Your task to perform on an android device: What is the news today? Image 0: 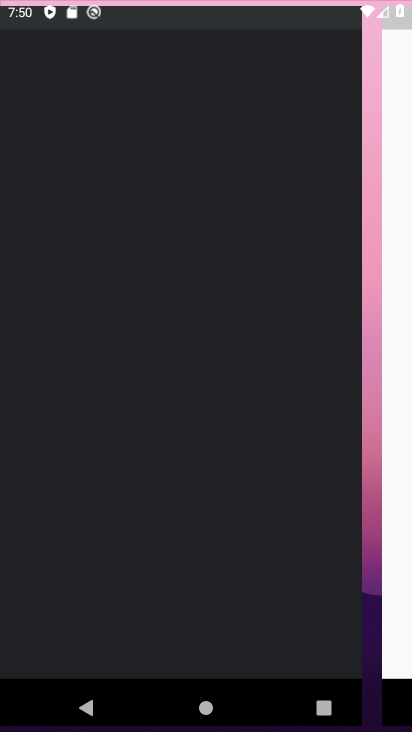
Step 0: drag from (188, 242) to (175, 164)
Your task to perform on an android device: What is the news today? Image 1: 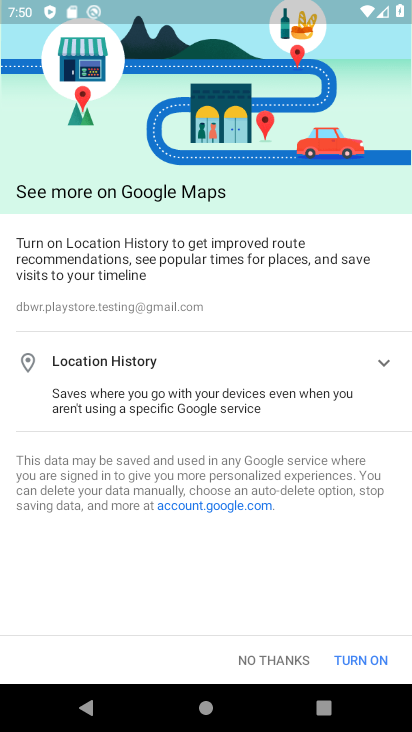
Step 1: press back button
Your task to perform on an android device: What is the news today? Image 2: 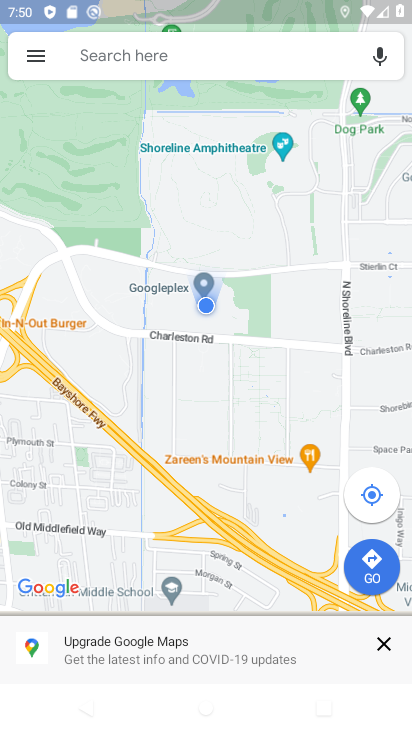
Step 2: press home button
Your task to perform on an android device: What is the news today? Image 3: 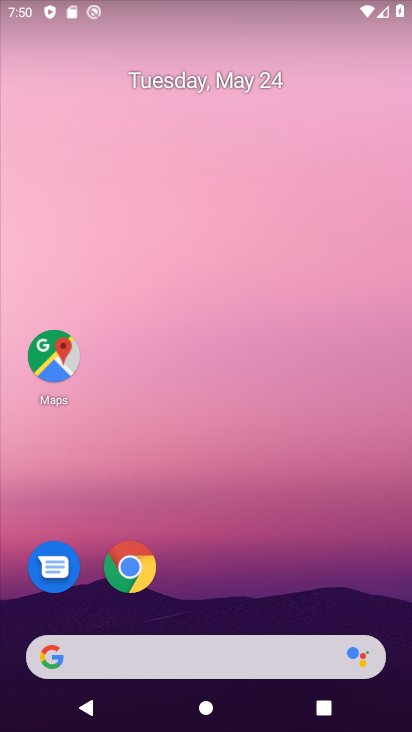
Step 3: drag from (259, 452) to (322, 525)
Your task to perform on an android device: What is the news today? Image 4: 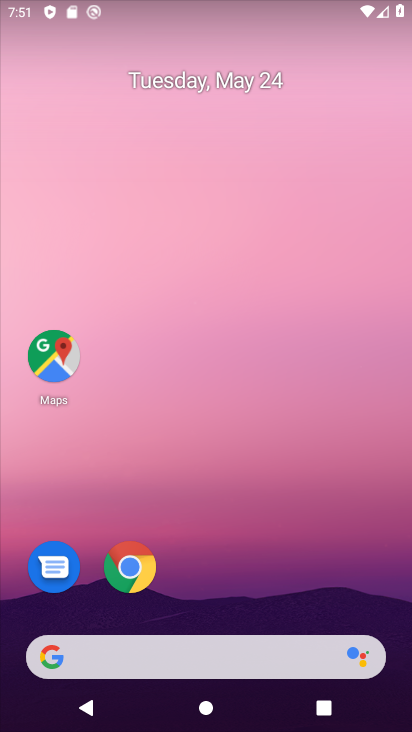
Step 4: drag from (116, 257) to (411, 660)
Your task to perform on an android device: What is the news today? Image 5: 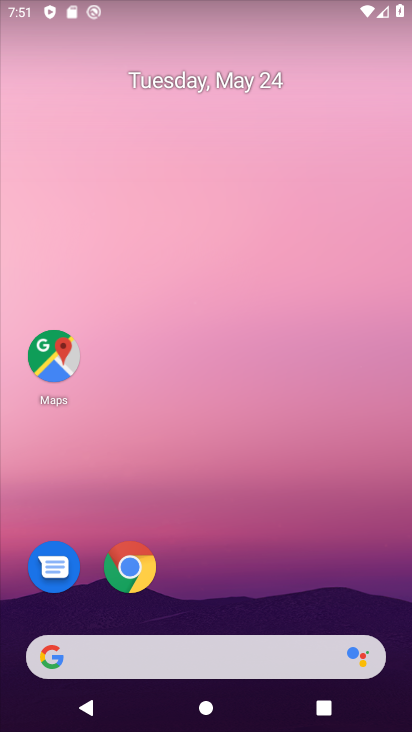
Step 5: drag from (4, 225) to (396, 309)
Your task to perform on an android device: What is the news today? Image 6: 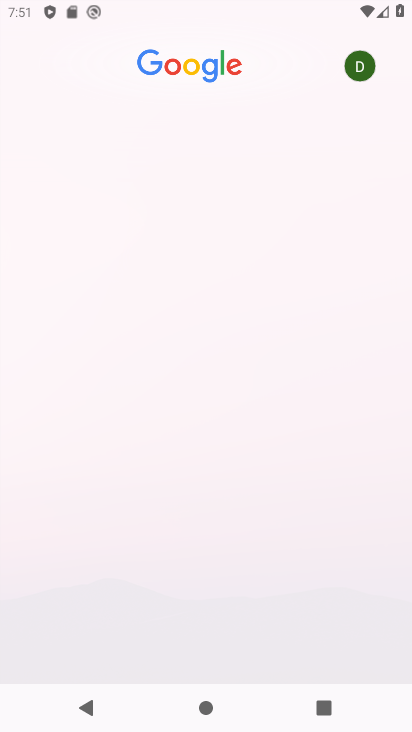
Step 6: drag from (103, 219) to (377, 405)
Your task to perform on an android device: What is the news today? Image 7: 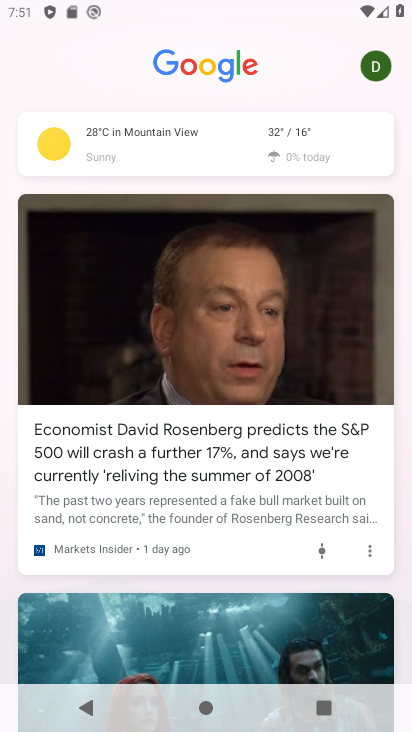
Step 7: drag from (197, 571) to (170, 106)
Your task to perform on an android device: What is the news today? Image 8: 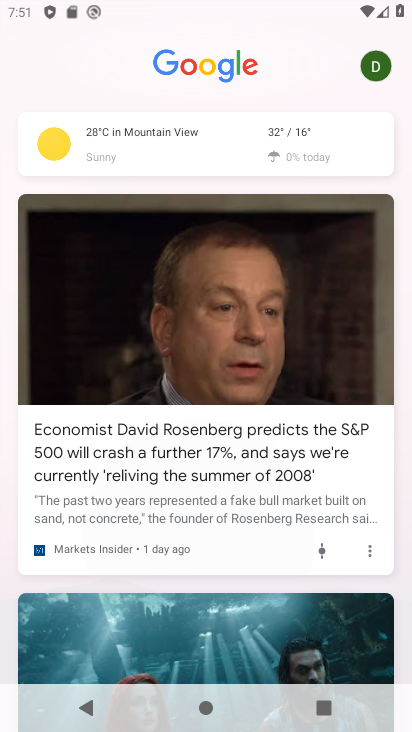
Step 8: drag from (169, 545) to (168, 69)
Your task to perform on an android device: What is the news today? Image 9: 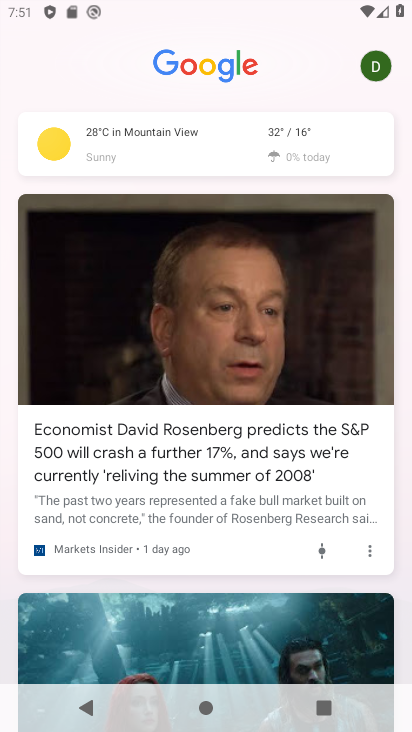
Step 9: drag from (168, 503) to (262, 105)
Your task to perform on an android device: What is the news today? Image 10: 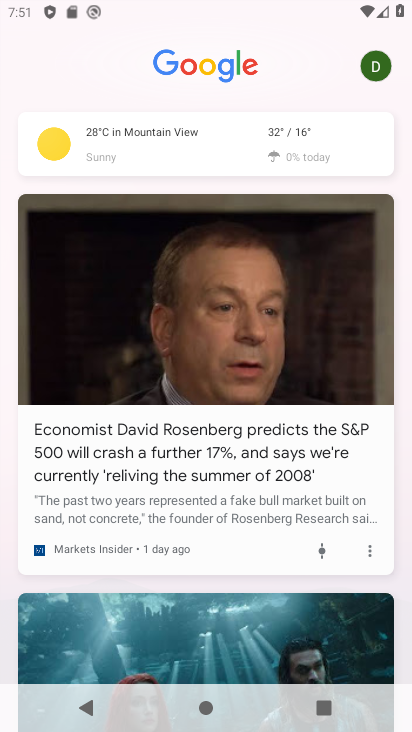
Step 10: drag from (303, 347) to (303, 284)
Your task to perform on an android device: What is the news today? Image 11: 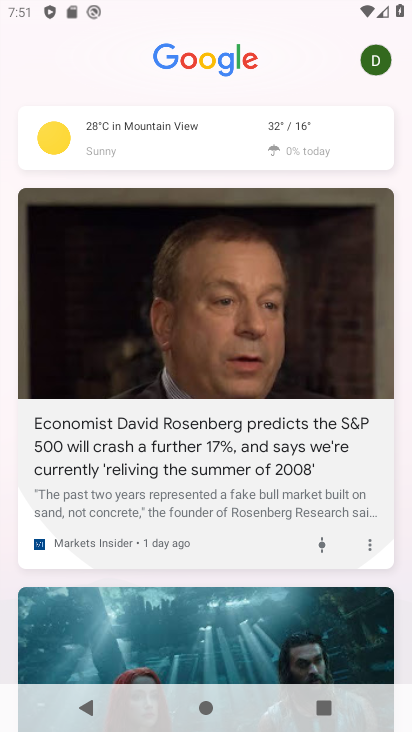
Step 11: drag from (234, 375) to (231, 290)
Your task to perform on an android device: What is the news today? Image 12: 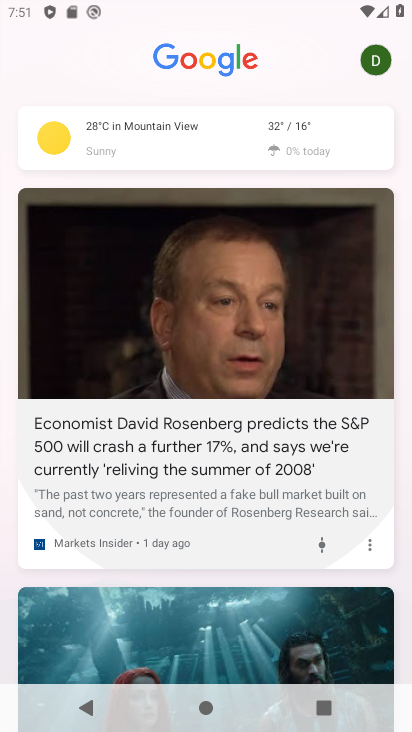
Step 12: drag from (199, 515) to (200, 281)
Your task to perform on an android device: What is the news today? Image 13: 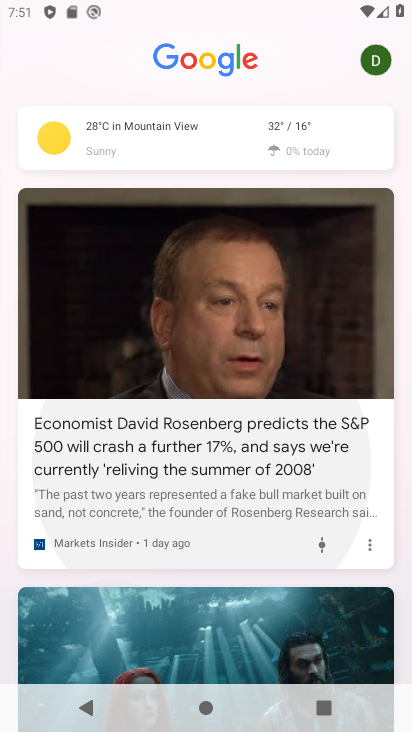
Step 13: drag from (140, 471) to (195, 54)
Your task to perform on an android device: What is the news today? Image 14: 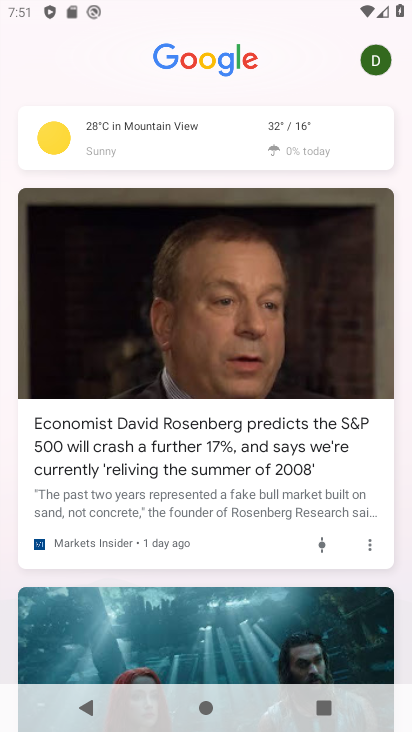
Step 14: drag from (198, 304) to (265, 68)
Your task to perform on an android device: What is the news today? Image 15: 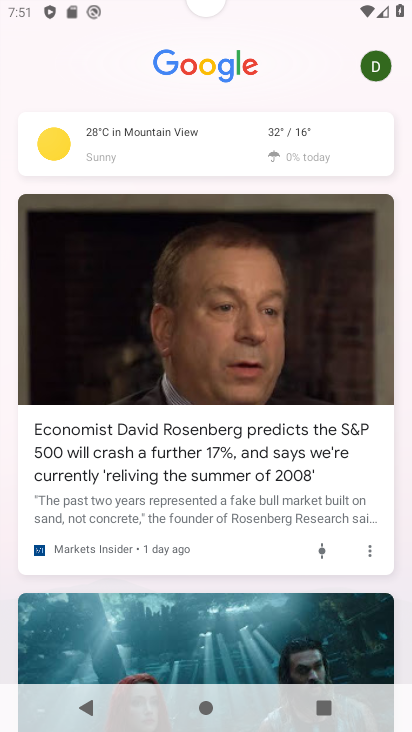
Step 15: drag from (261, 20) to (277, 50)
Your task to perform on an android device: What is the news today? Image 16: 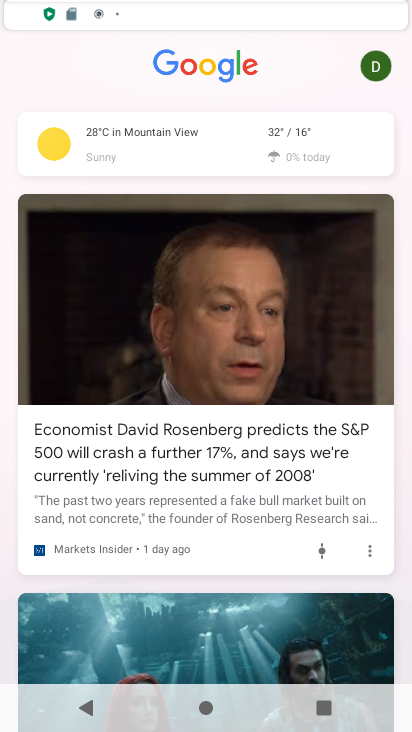
Step 16: click (296, 22)
Your task to perform on an android device: What is the news today? Image 17: 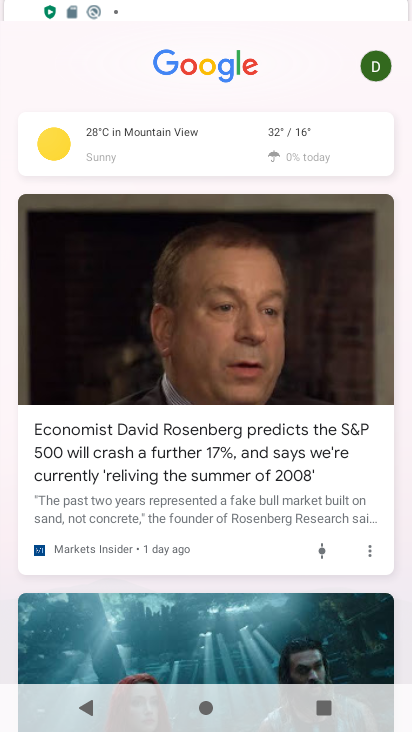
Step 17: task complete